Your task to perform on an android device: What is the recent news? Image 0: 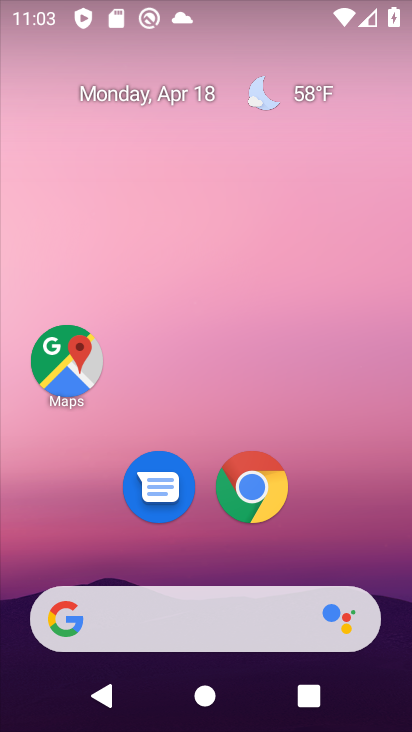
Step 0: drag from (8, 242) to (411, 391)
Your task to perform on an android device: What is the recent news? Image 1: 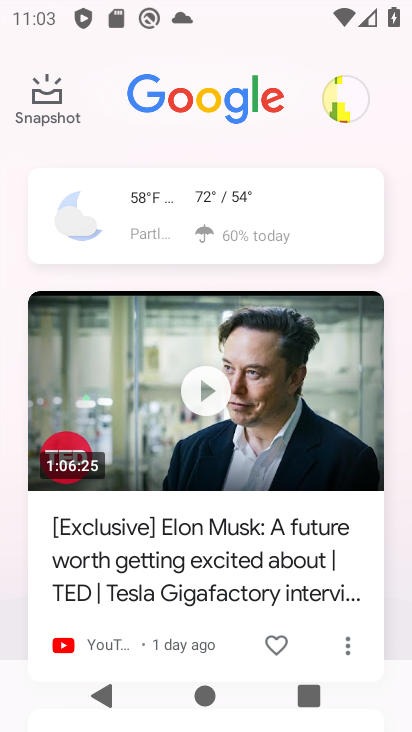
Step 1: task complete